Your task to perform on an android device: Go to eBay Image 0: 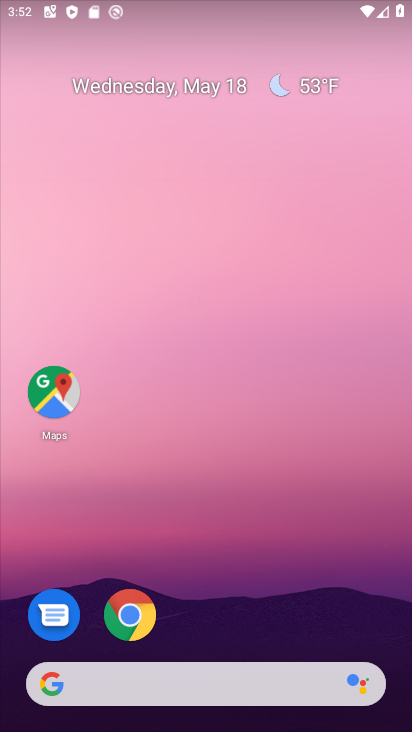
Step 0: click (133, 619)
Your task to perform on an android device: Go to eBay Image 1: 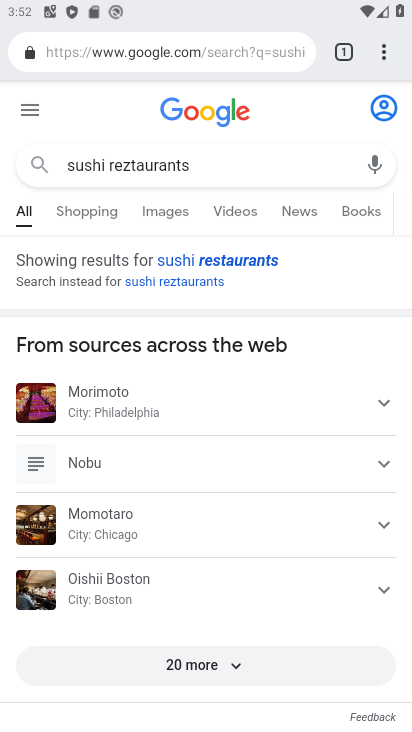
Step 1: click (224, 42)
Your task to perform on an android device: Go to eBay Image 2: 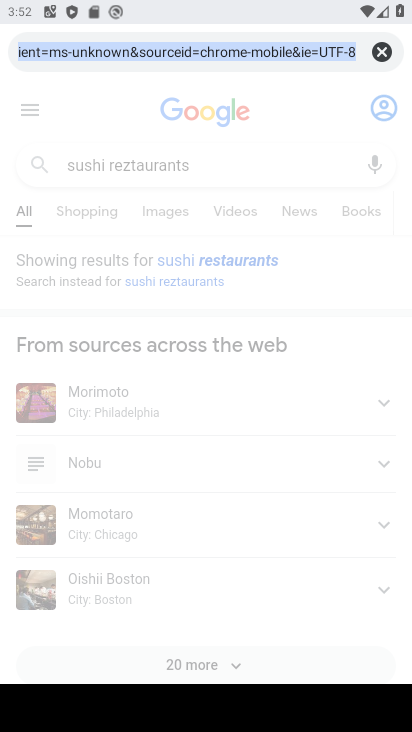
Step 2: type ""
Your task to perform on an android device: Go to eBay Image 3: 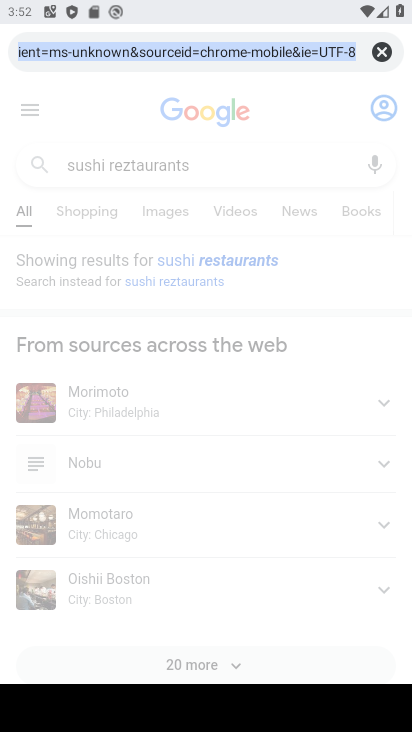
Step 3: type "ebay"
Your task to perform on an android device: Go to eBay Image 4: 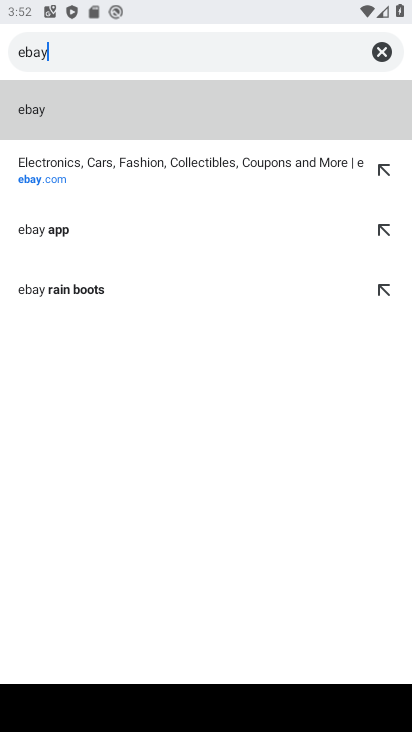
Step 4: click (55, 182)
Your task to perform on an android device: Go to eBay Image 5: 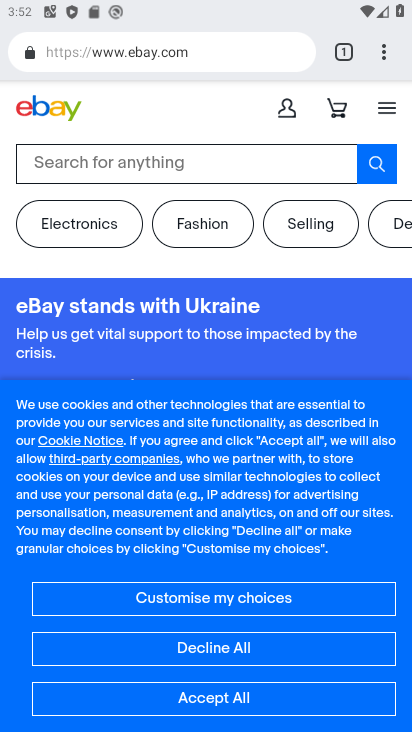
Step 5: task complete